Your task to perform on an android device: Find coffee shops on Maps Image 0: 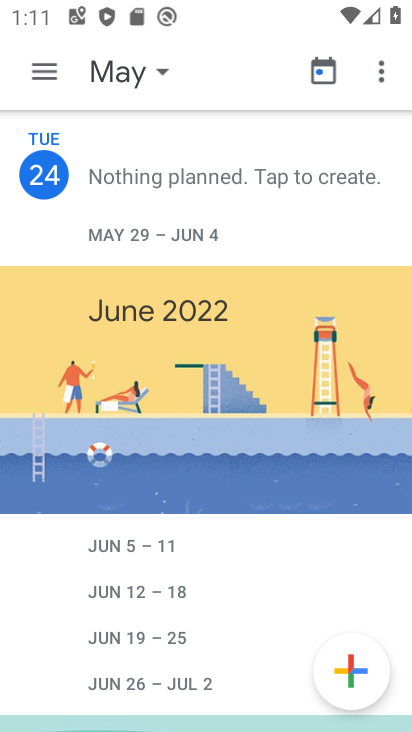
Step 0: press home button
Your task to perform on an android device: Find coffee shops on Maps Image 1: 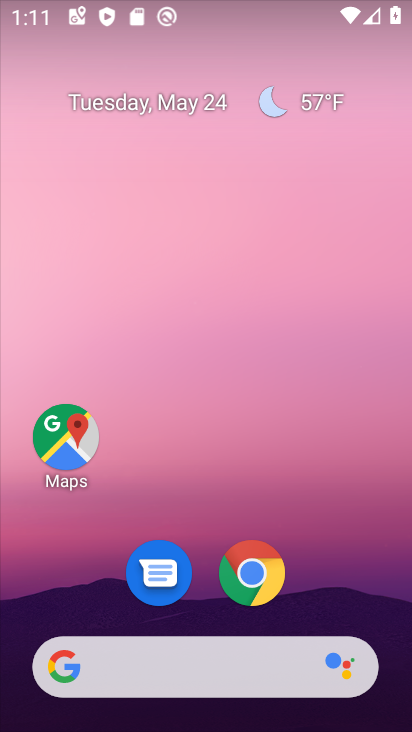
Step 1: drag from (339, 539) to (311, 135)
Your task to perform on an android device: Find coffee shops on Maps Image 2: 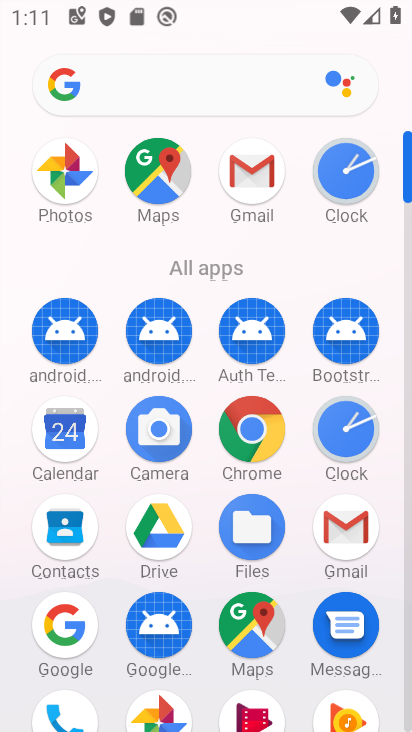
Step 2: click (248, 628)
Your task to perform on an android device: Find coffee shops on Maps Image 3: 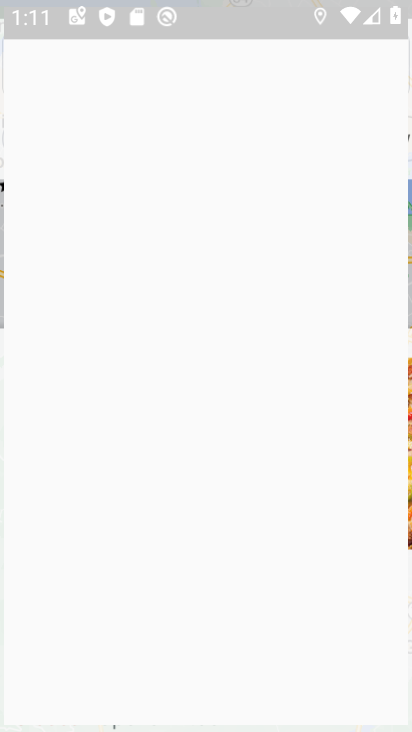
Step 3: click (292, 80)
Your task to perform on an android device: Find coffee shops on Maps Image 4: 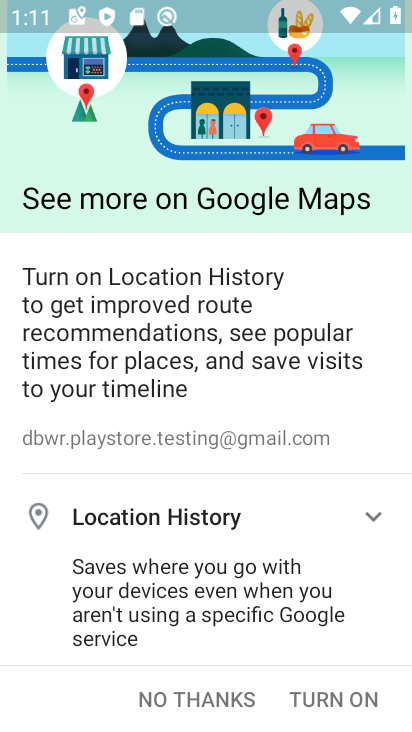
Step 4: click (200, 693)
Your task to perform on an android device: Find coffee shops on Maps Image 5: 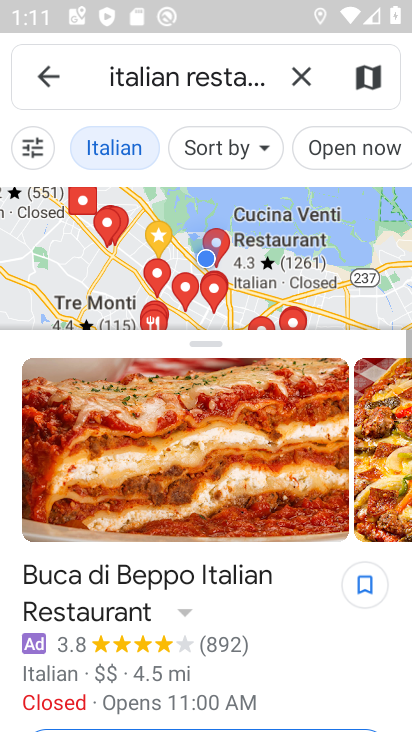
Step 5: click (212, 80)
Your task to perform on an android device: Find coffee shops on Maps Image 6: 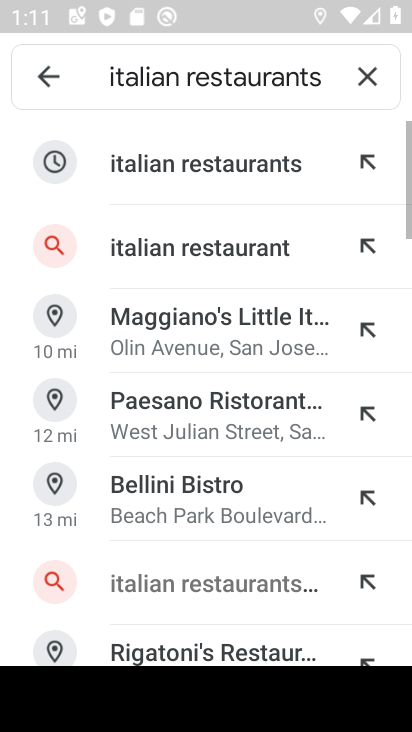
Step 6: click (371, 78)
Your task to perform on an android device: Find coffee shops on Maps Image 7: 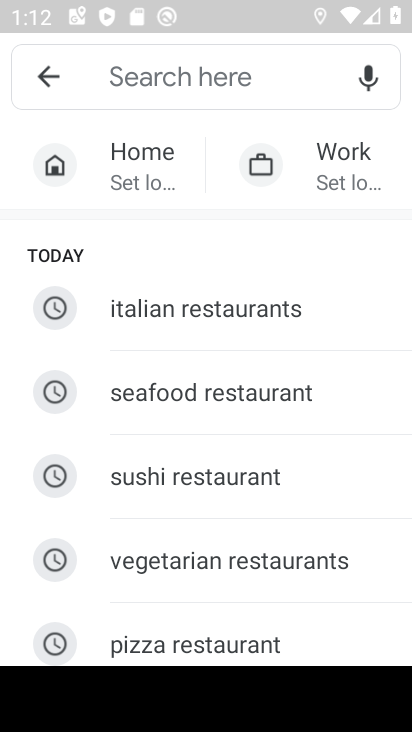
Step 7: type "coffee shops"
Your task to perform on an android device: Find coffee shops on Maps Image 8: 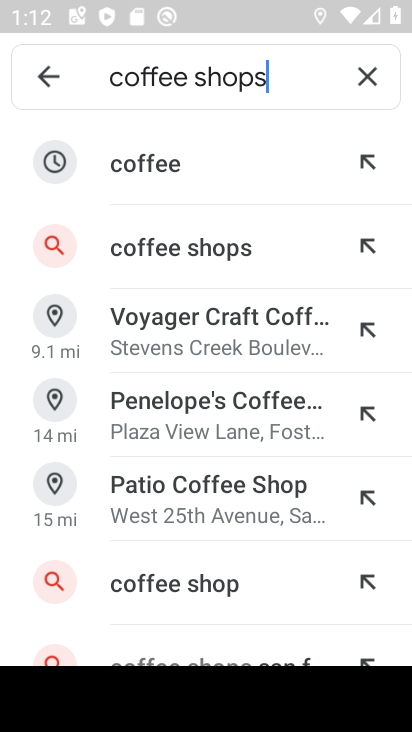
Step 8: click (231, 246)
Your task to perform on an android device: Find coffee shops on Maps Image 9: 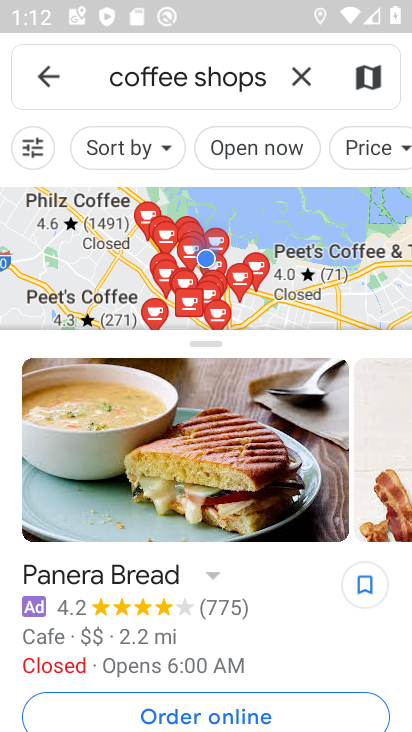
Step 9: task complete